Your task to perform on an android device: Search for sushi restaurants on Maps Image 0: 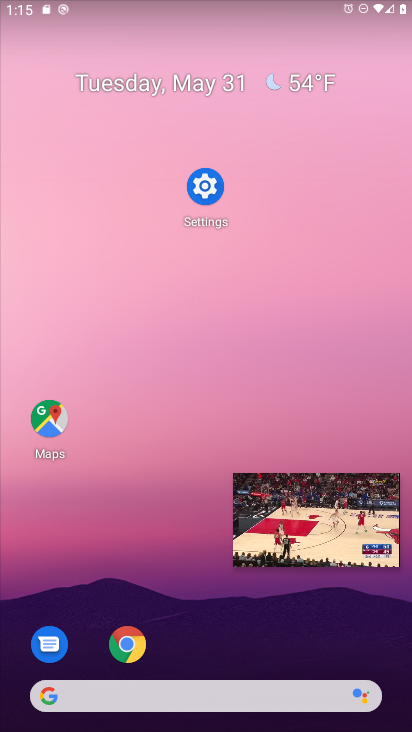
Step 0: click (335, 518)
Your task to perform on an android device: Search for sushi restaurants on Maps Image 1: 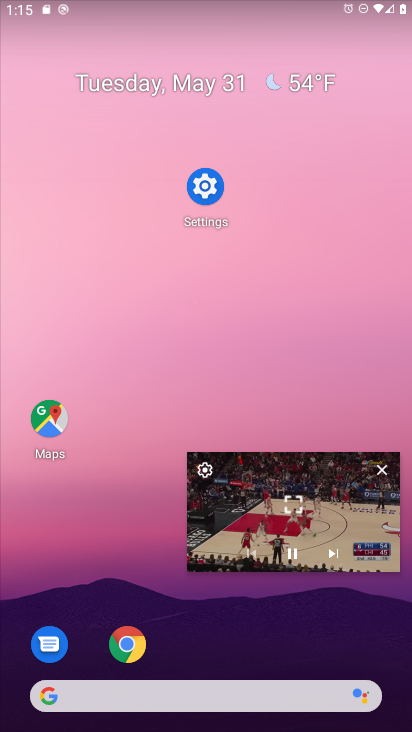
Step 1: click (386, 470)
Your task to perform on an android device: Search for sushi restaurants on Maps Image 2: 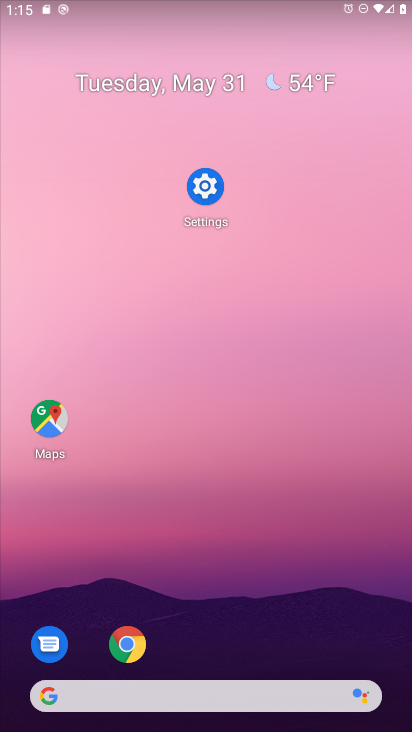
Step 2: press home button
Your task to perform on an android device: Search for sushi restaurants on Maps Image 3: 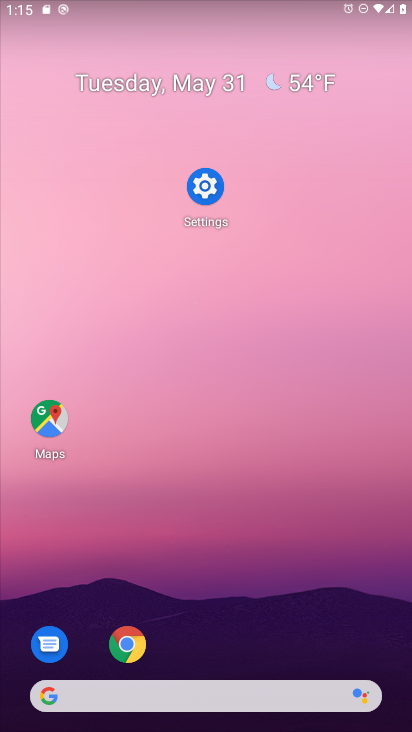
Step 3: click (57, 422)
Your task to perform on an android device: Search for sushi restaurants on Maps Image 4: 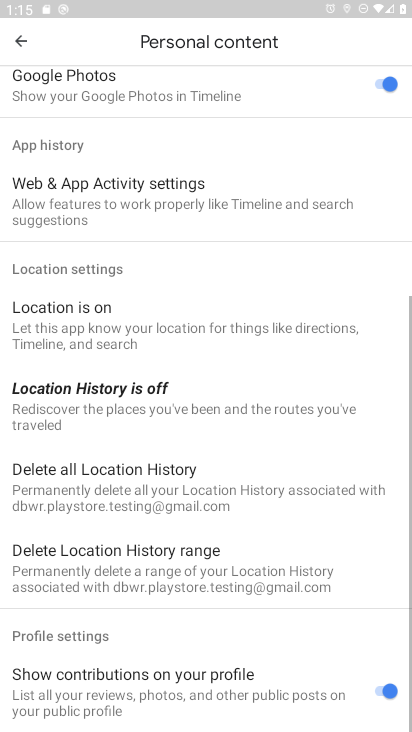
Step 4: click (24, 38)
Your task to perform on an android device: Search for sushi restaurants on Maps Image 5: 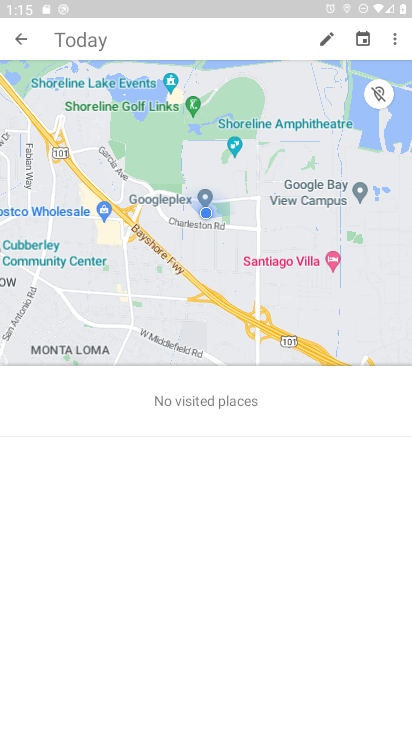
Step 5: click (121, 41)
Your task to perform on an android device: Search for sushi restaurants on Maps Image 6: 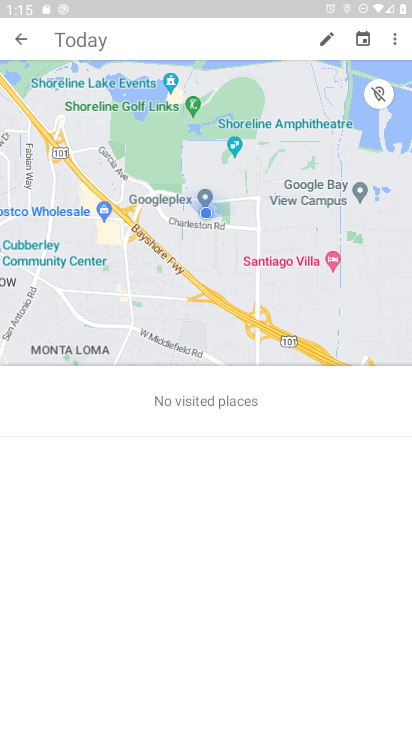
Step 6: click (157, 38)
Your task to perform on an android device: Search for sushi restaurants on Maps Image 7: 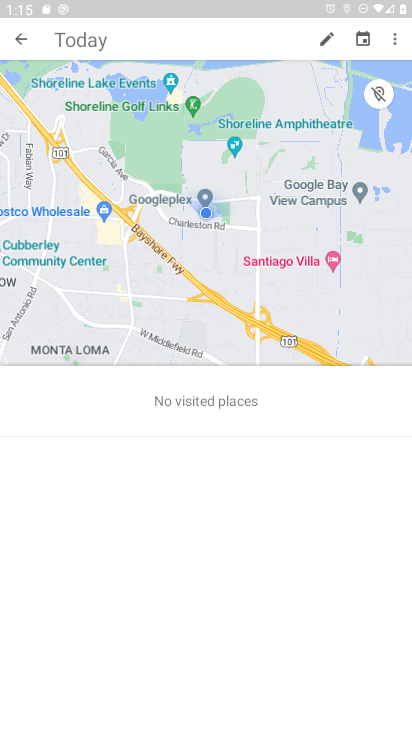
Step 7: click (24, 35)
Your task to perform on an android device: Search for sushi restaurants on Maps Image 8: 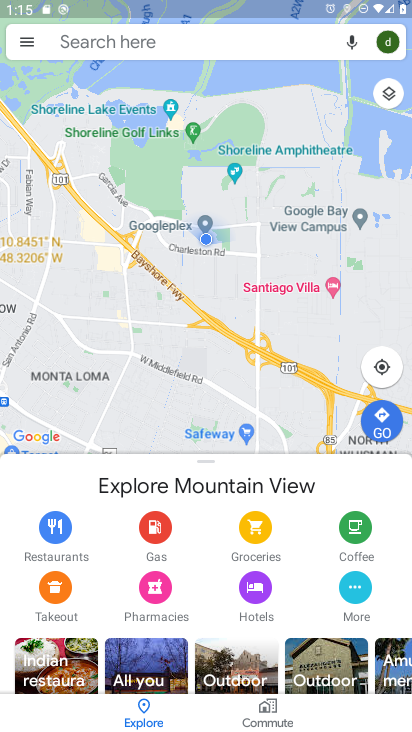
Step 8: click (148, 40)
Your task to perform on an android device: Search for sushi restaurants on Maps Image 9: 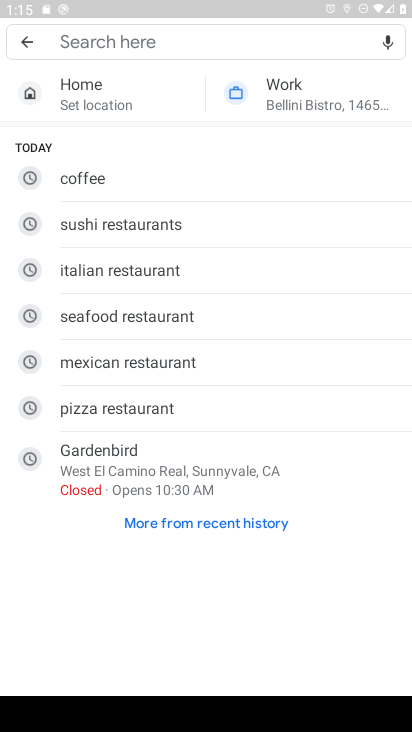
Step 9: click (112, 231)
Your task to perform on an android device: Search for sushi restaurants on Maps Image 10: 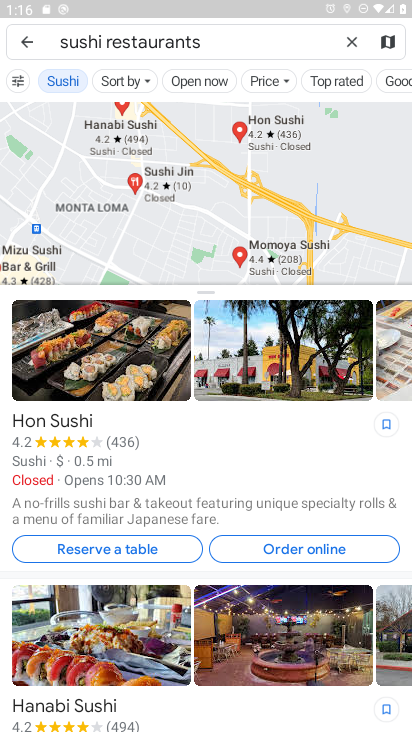
Step 10: task complete